Your task to perform on an android device: Go to Maps Image 0: 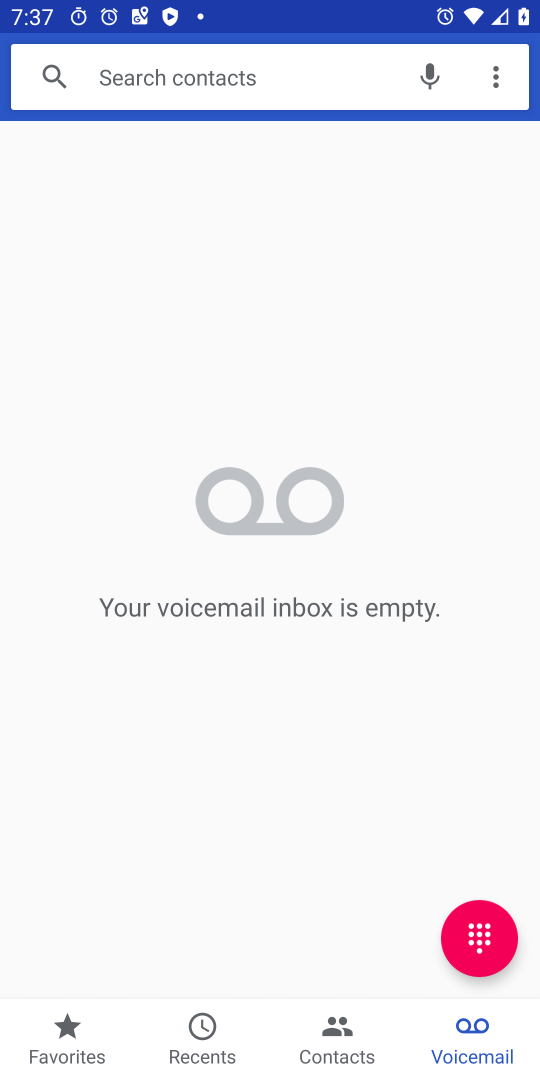
Step 0: press home button
Your task to perform on an android device: Go to Maps Image 1: 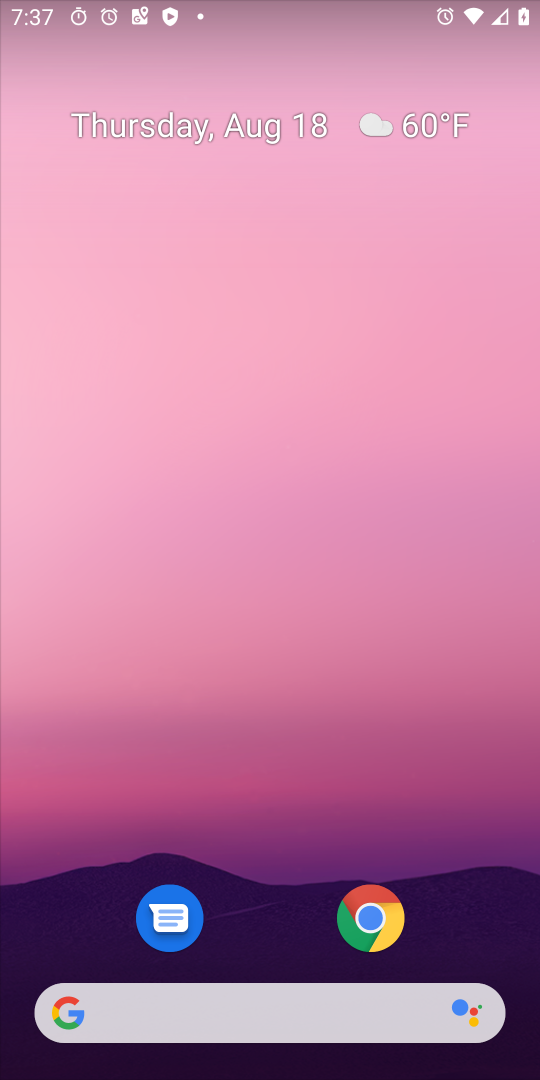
Step 1: drag from (285, 702) to (159, 75)
Your task to perform on an android device: Go to Maps Image 2: 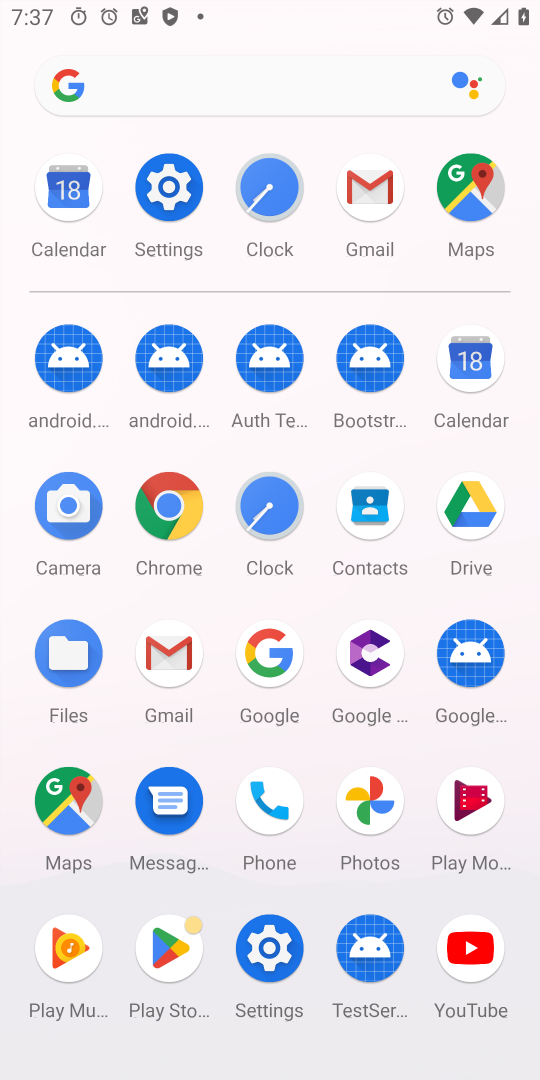
Step 2: click (462, 200)
Your task to perform on an android device: Go to Maps Image 3: 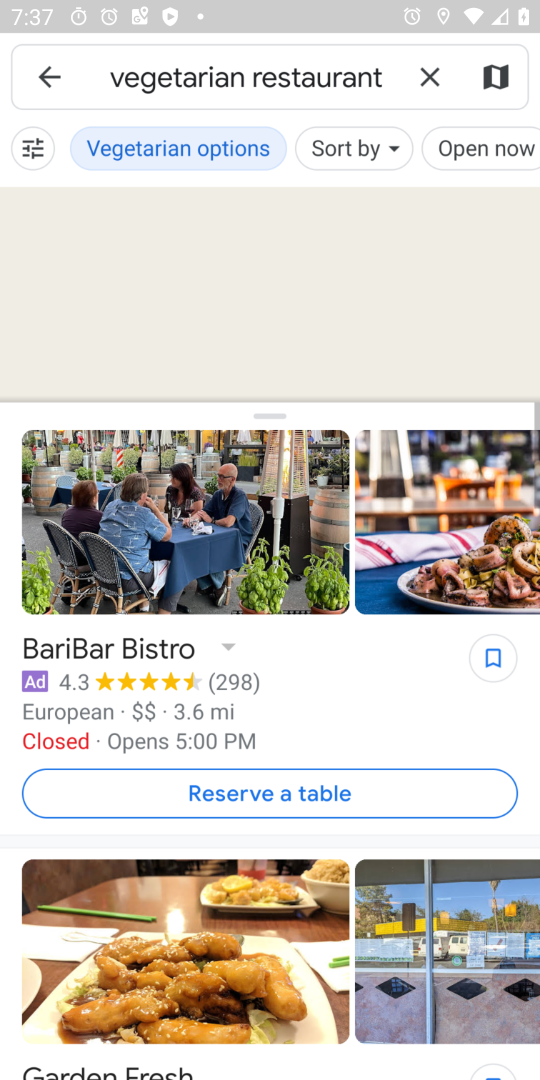
Step 3: task complete